Your task to perform on an android device: Open the Play Movies app and select the watchlist tab. Image 0: 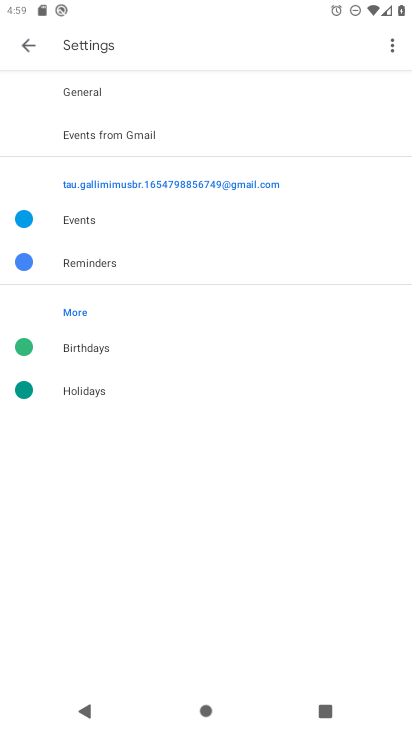
Step 0: press home button
Your task to perform on an android device: Open the Play Movies app and select the watchlist tab. Image 1: 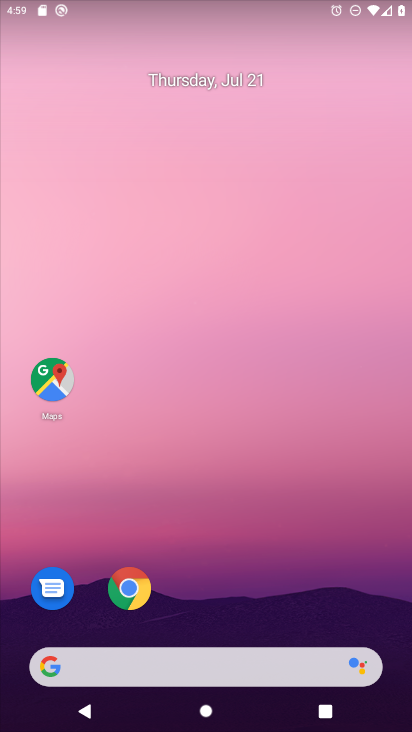
Step 1: drag from (326, 595) to (194, 84)
Your task to perform on an android device: Open the Play Movies app and select the watchlist tab. Image 2: 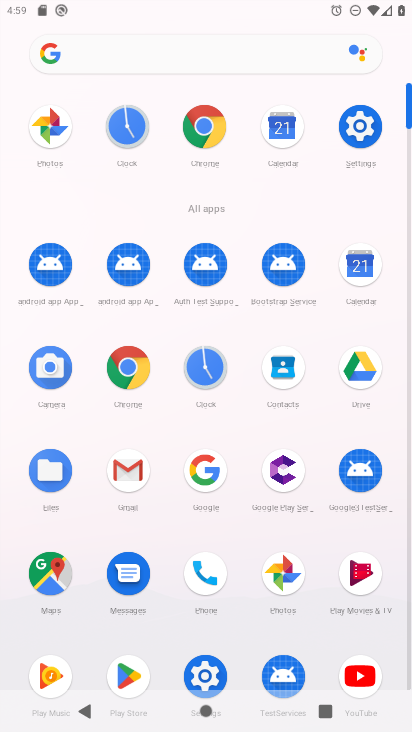
Step 2: click (362, 577)
Your task to perform on an android device: Open the Play Movies app and select the watchlist tab. Image 3: 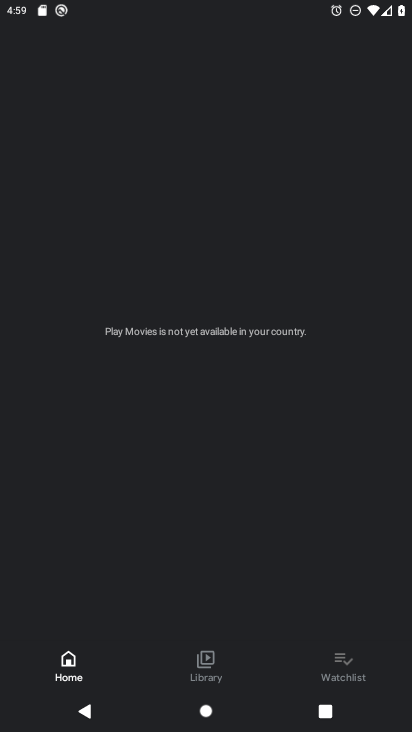
Step 3: click (346, 656)
Your task to perform on an android device: Open the Play Movies app and select the watchlist tab. Image 4: 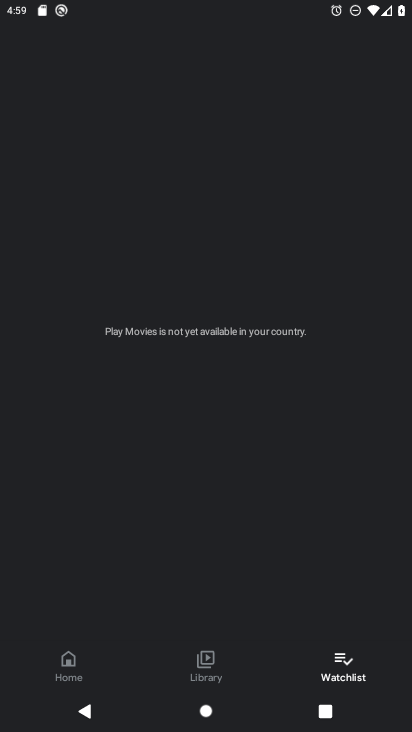
Step 4: task complete